Your task to perform on an android device: Go to Maps Image 0: 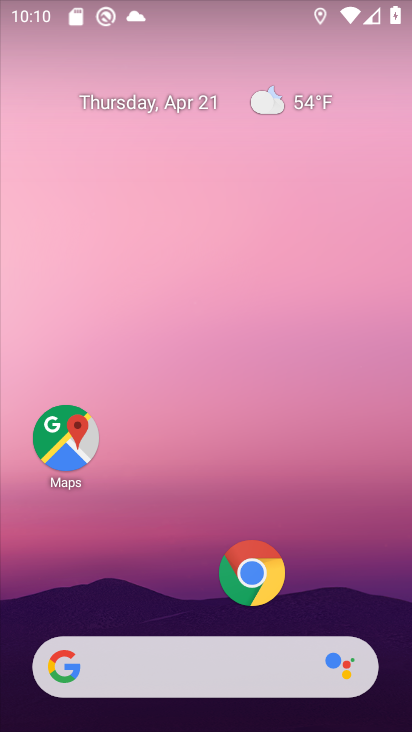
Step 0: click (75, 443)
Your task to perform on an android device: Go to Maps Image 1: 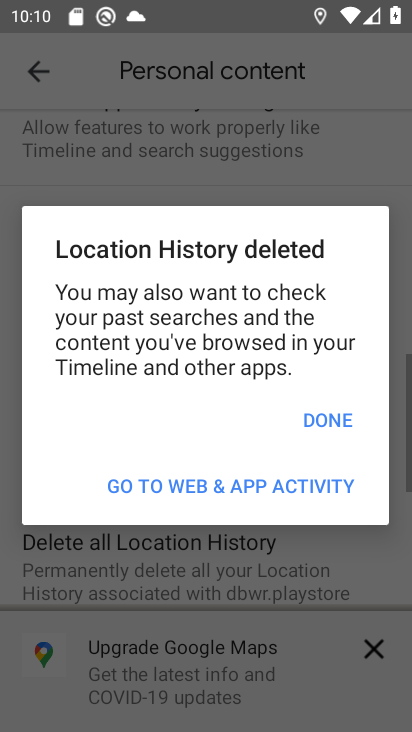
Step 1: click (322, 417)
Your task to perform on an android device: Go to Maps Image 2: 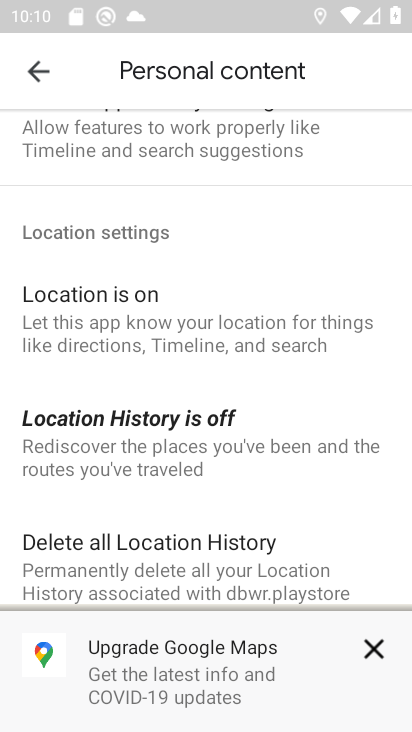
Step 2: click (371, 644)
Your task to perform on an android device: Go to Maps Image 3: 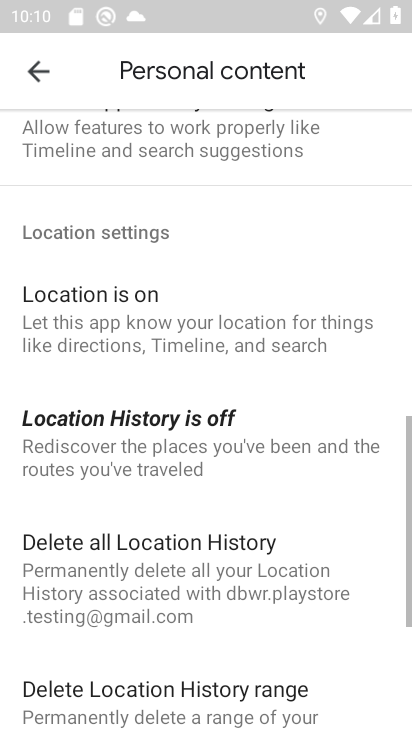
Step 3: click (40, 73)
Your task to perform on an android device: Go to Maps Image 4: 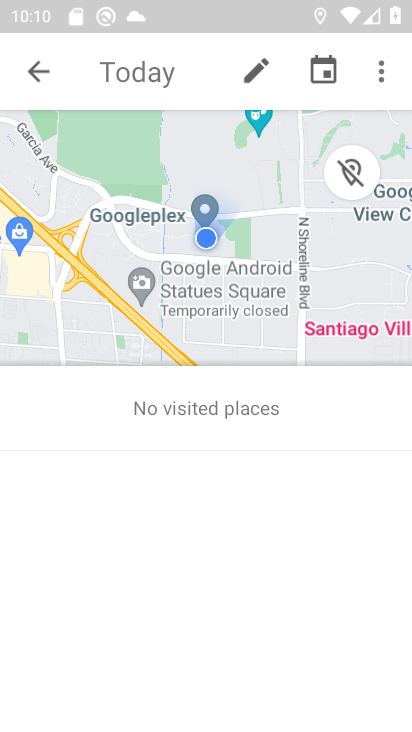
Step 4: click (37, 68)
Your task to perform on an android device: Go to Maps Image 5: 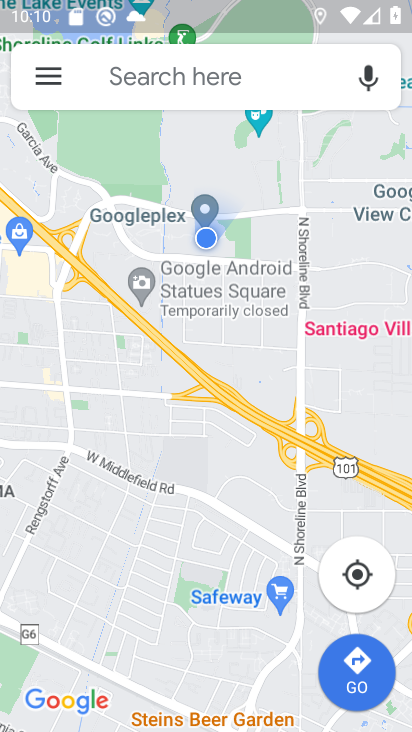
Step 5: task complete